Your task to perform on an android device: see tabs open on other devices in the chrome app Image 0: 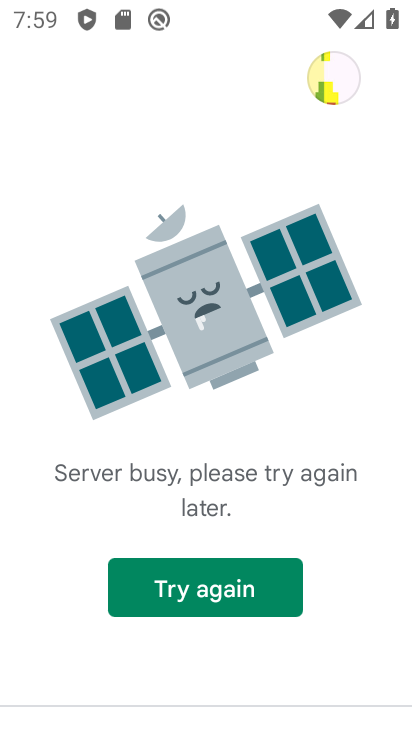
Step 0: press back button
Your task to perform on an android device: see tabs open on other devices in the chrome app Image 1: 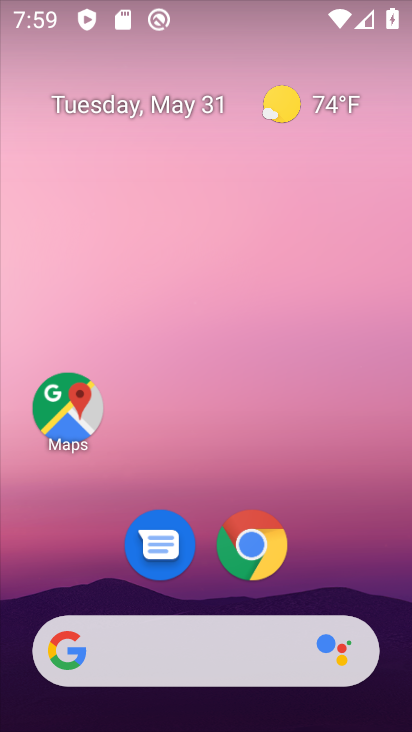
Step 1: drag from (346, 521) to (228, 13)
Your task to perform on an android device: see tabs open on other devices in the chrome app Image 2: 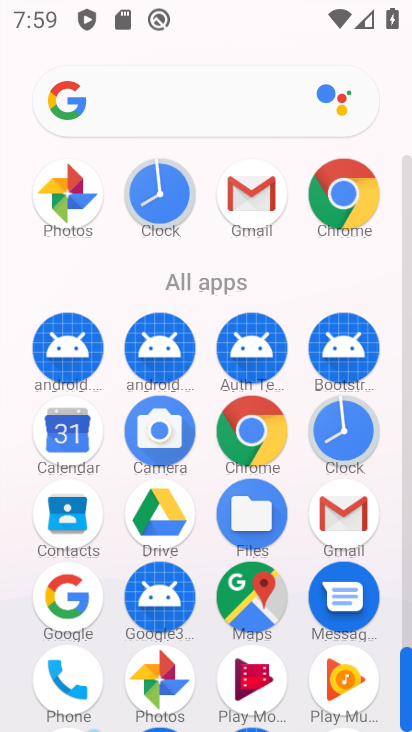
Step 2: drag from (3, 601) to (18, 194)
Your task to perform on an android device: see tabs open on other devices in the chrome app Image 3: 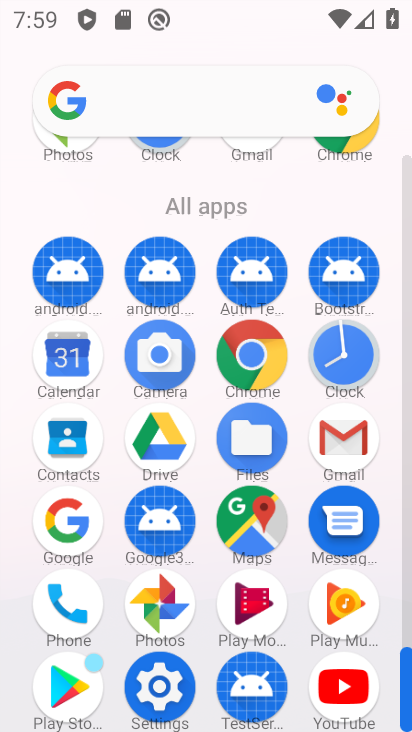
Step 3: click (246, 350)
Your task to perform on an android device: see tabs open on other devices in the chrome app Image 4: 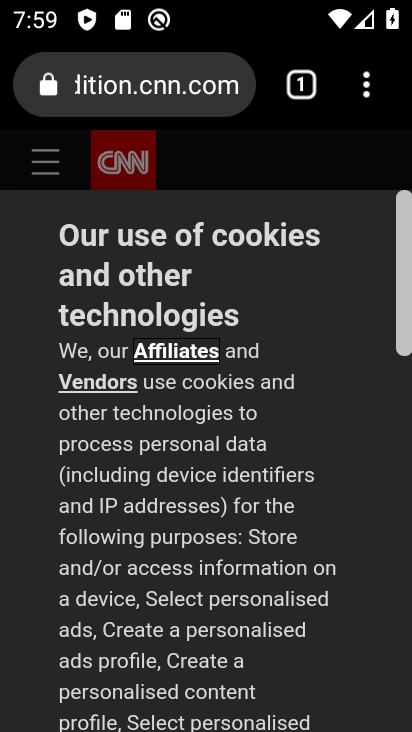
Step 4: task complete